Your task to perform on an android device: Search for flights from Buenos aires to Tokyo Image 0: 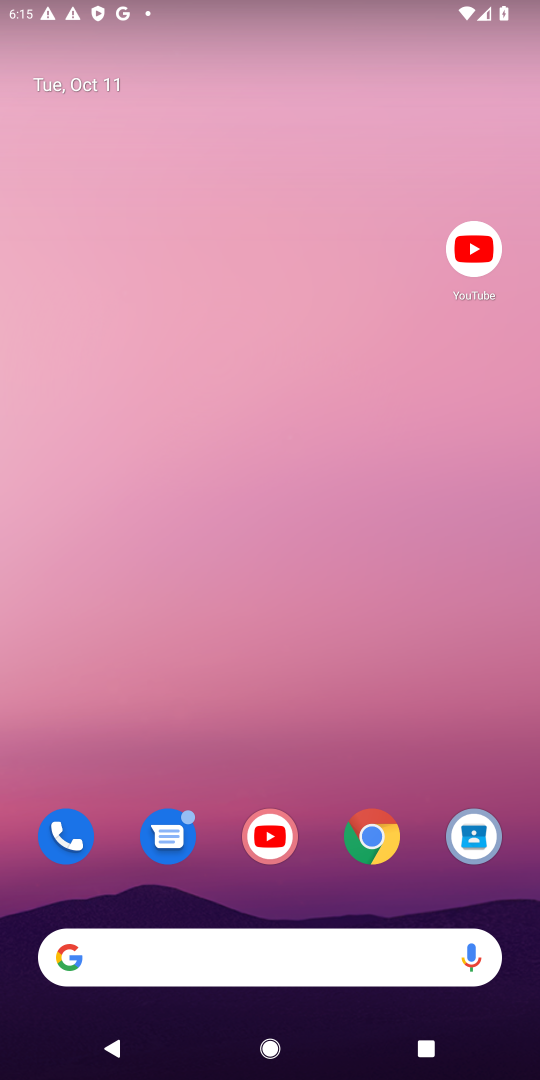
Step 0: click (375, 839)
Your task to perform on an android device: Search for flights from Buenos aires to Tokyo Image 1: 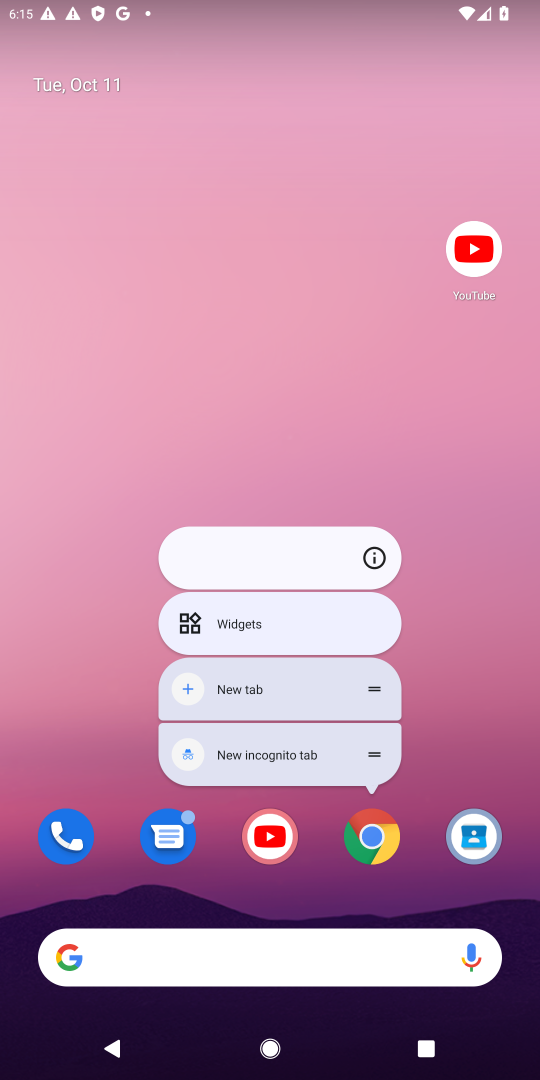
Step 1: click (375, 839)
Your task to perform on an android device: Search for flights from Buenos aires to Tokyo Image 2: 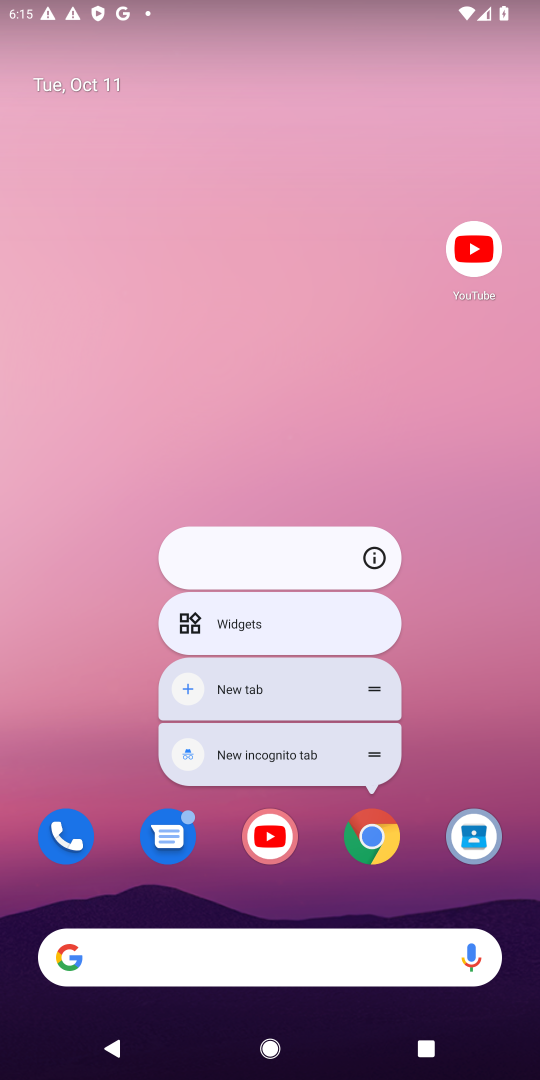
Step 2: click (366, 848)
Your task to perform on an android device: Search for flights from Buenos aires to Tokyo Image 3: 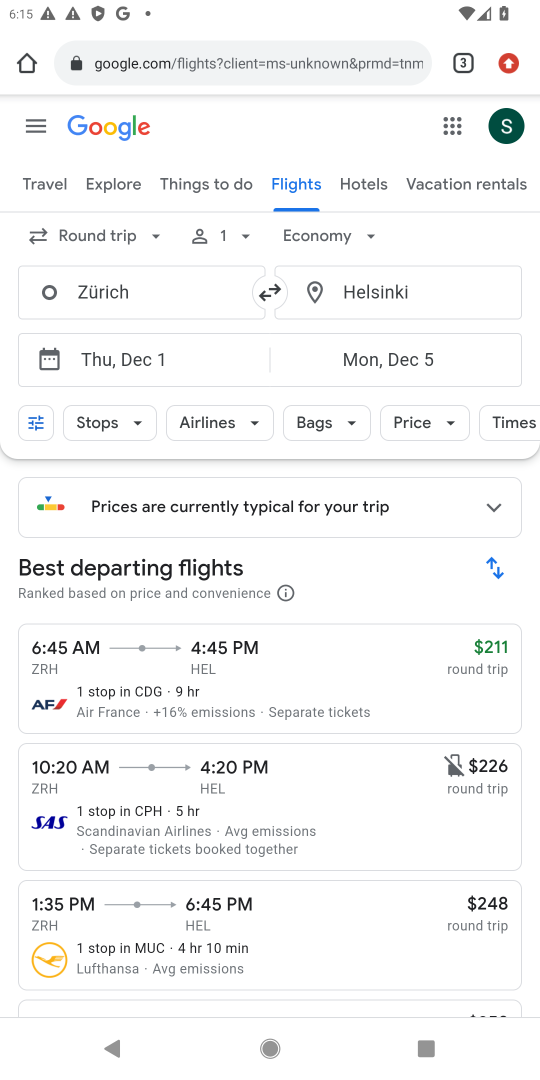
Step 3: click (299, 60)
Your task to perform on an android device: Search for flights from Buenos aires to Tokyo Image 4: 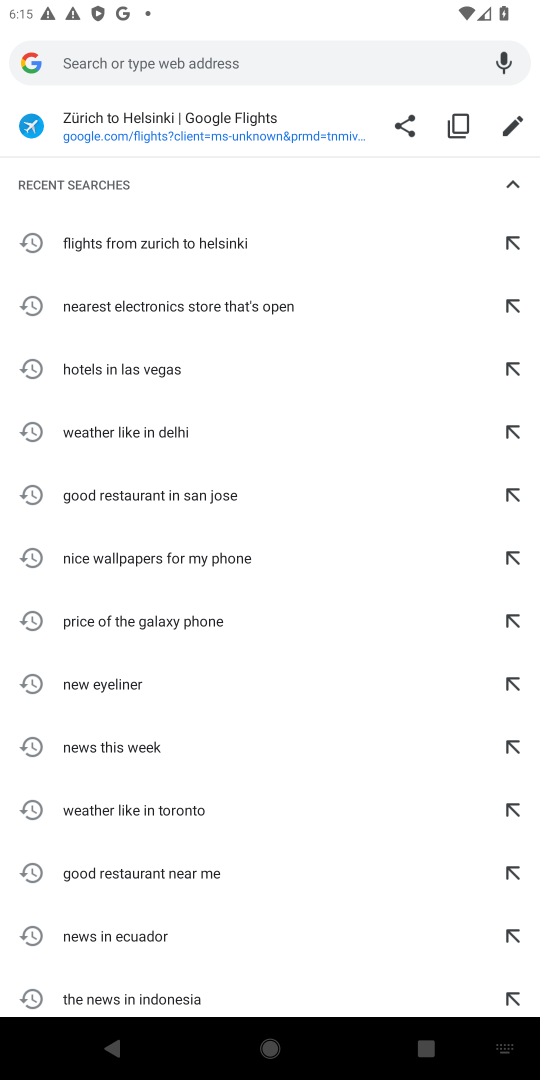
Step 4: type " flights from Buenos aires to Tokyo"
Your task to perform on an android device: Search for flights from Buenos aires to Tokyo Image 5: 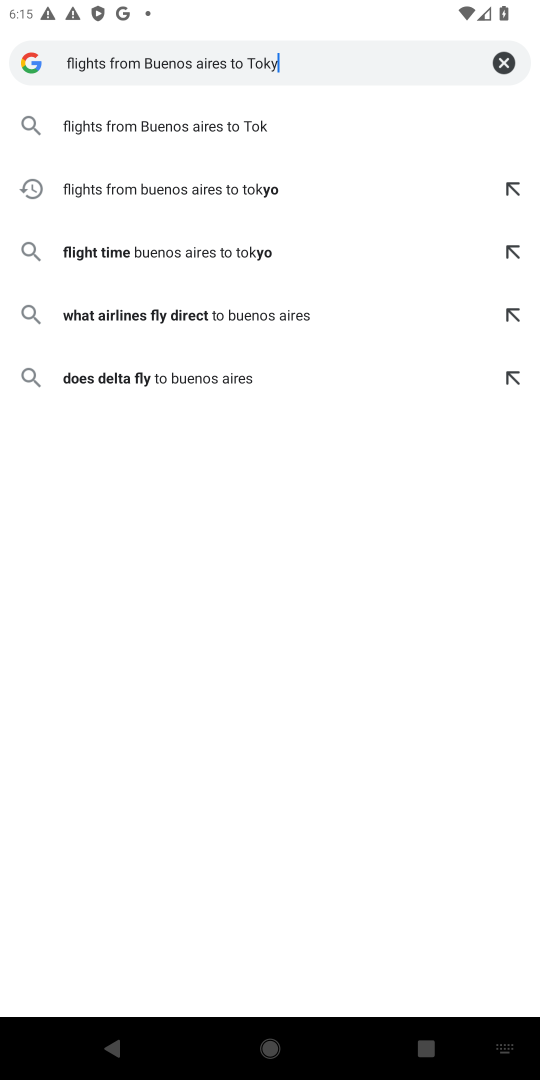
Step 5: press enter
Your task to perform on an android device: Search for flights from Buenos aires to Tokyo Image 6: 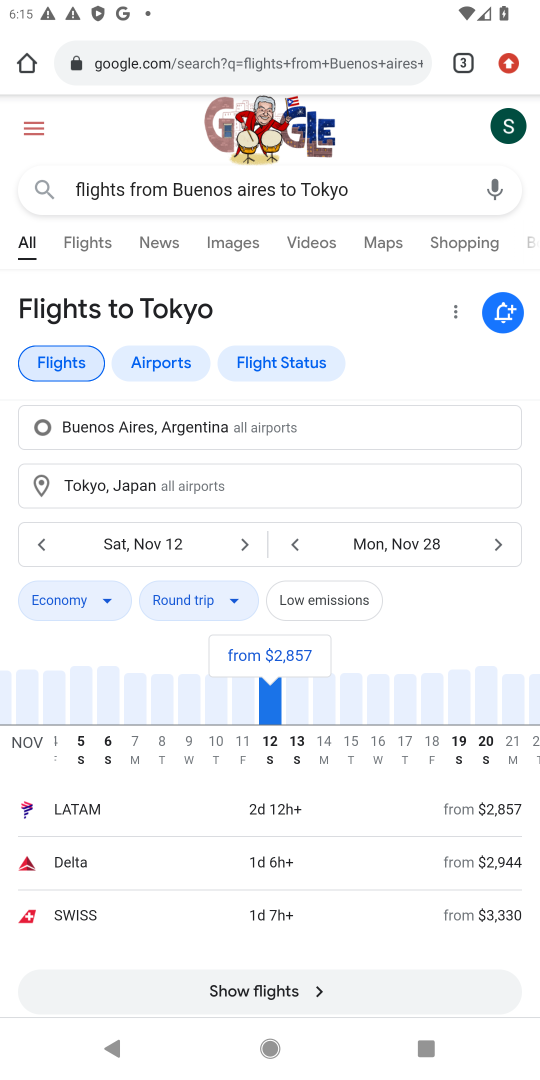
Step 6: drag from (122, 847) to (363, 414)
Your task to perform on an android device: Search for flights from Buenos aires to Tokyo Image 7: 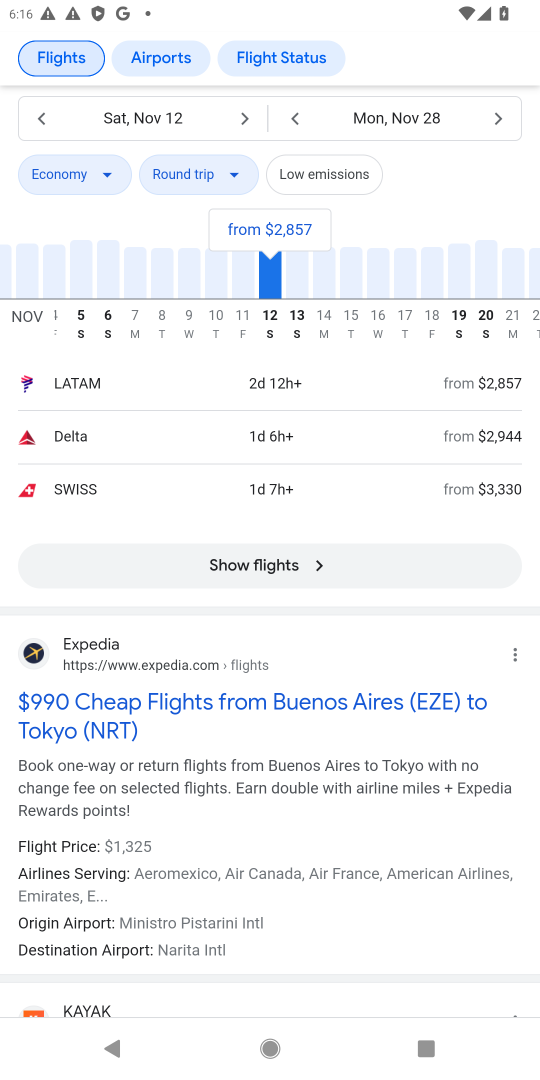
Step 7: click (255, 552)
Your task to perform on an android device: Search for flights from Buenos aires to Tokyo Image 8: 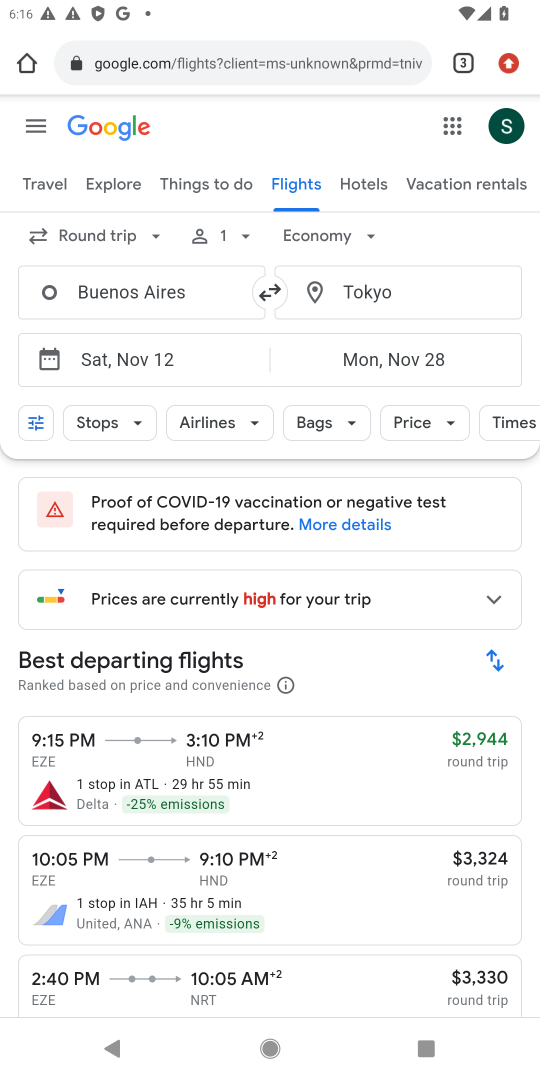
Step 8: task complete